Your task to perform on an android device: turn on airplane mode Image 0: 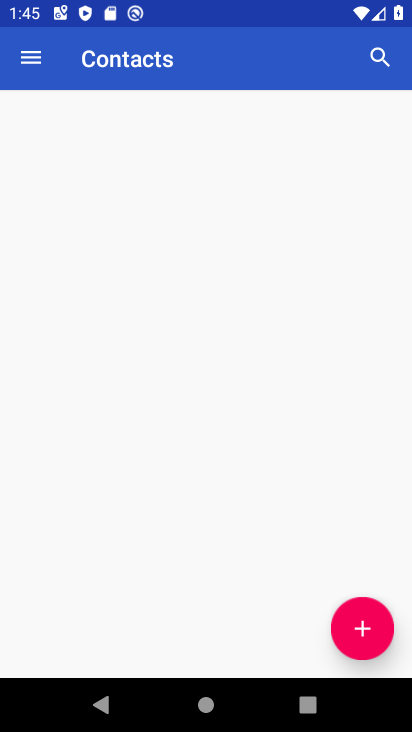
Step 0: drag from (332, 503) to (398, 0)
Your task to perform on an android device: turn on airplane mode Image 1: 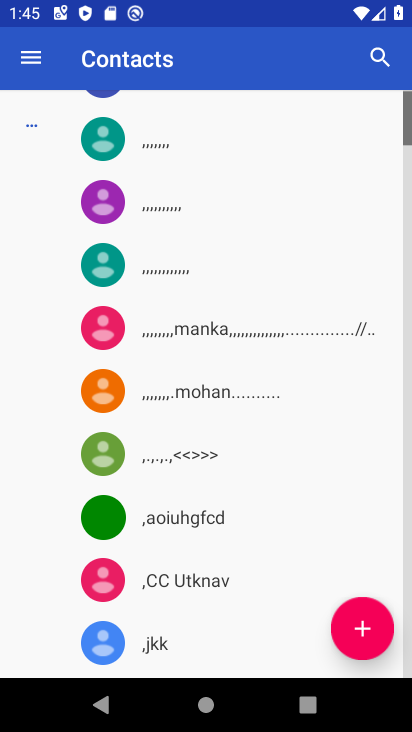
Step 1: press home button
Your task to perform on an android device: turn on airplane mode Image 2: 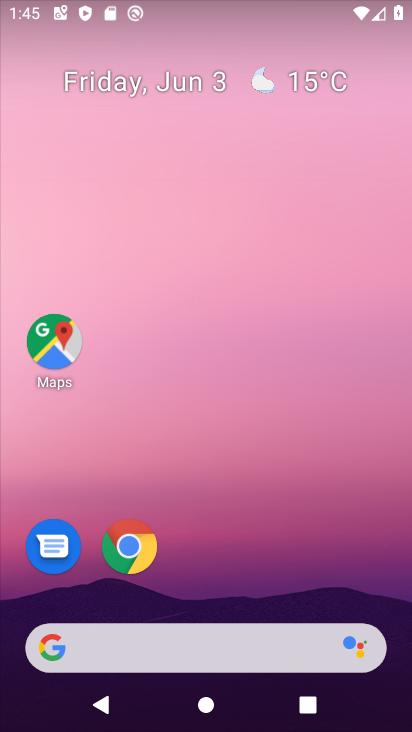
Step 2: drag from (313, 405) to (358, 0)
Your task to perform on an android device: turn on airplane mode Image 3: 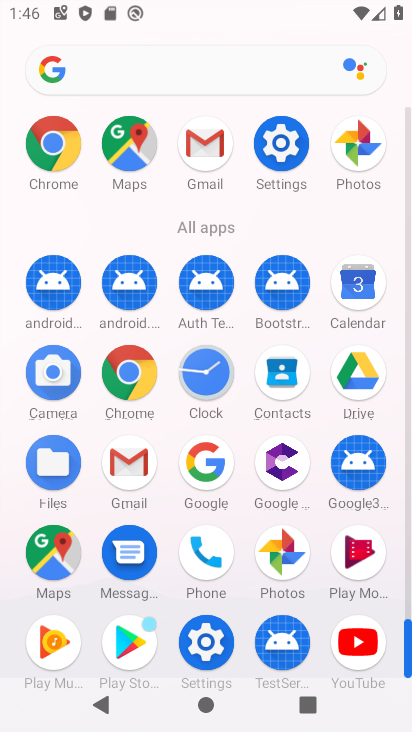
Step 3: click (279, 145)
Your task to perform on an android device: turn on airplane mode Image 4: 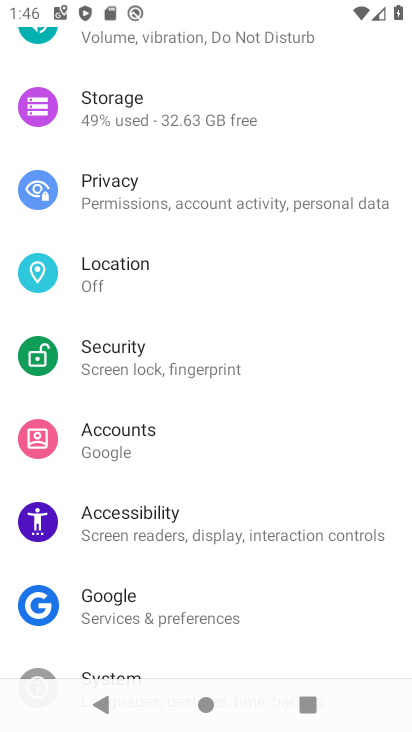
Step 4: drag from (234, 228) to (293, 654)
Your task to perform on an android device: turn on airplane mode Image 5: 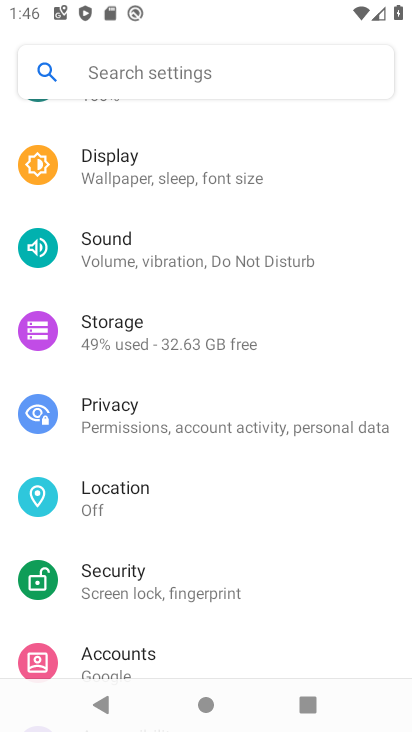
Step 5: drag from (193, 113) to (245, 667)
Your task to perform on an android device: turn on airplane mode Image 6: 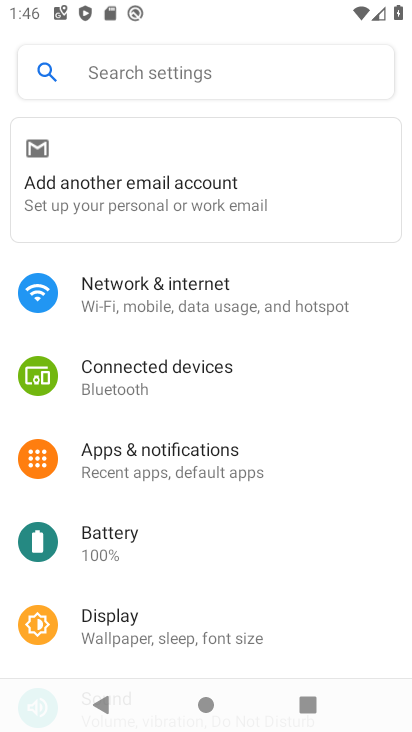
Step 6: drag from (177, 423) to (191, 603)
Your task to perform on an android device: turn on airplane mode Image 7: 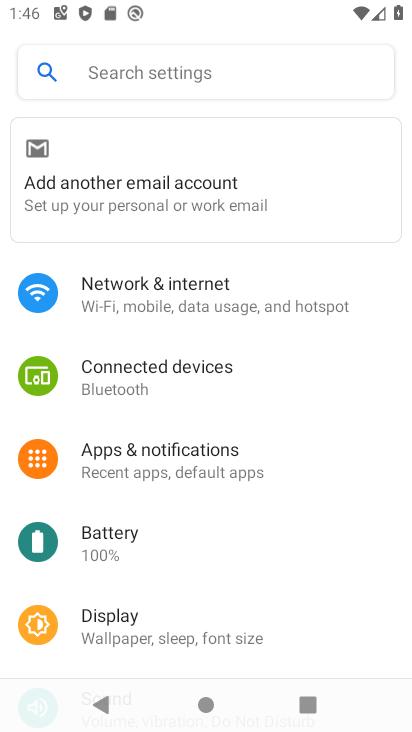
Step 7: click (157, 295)
Your task to perform on an android device: turn on airplane mode Image 8: 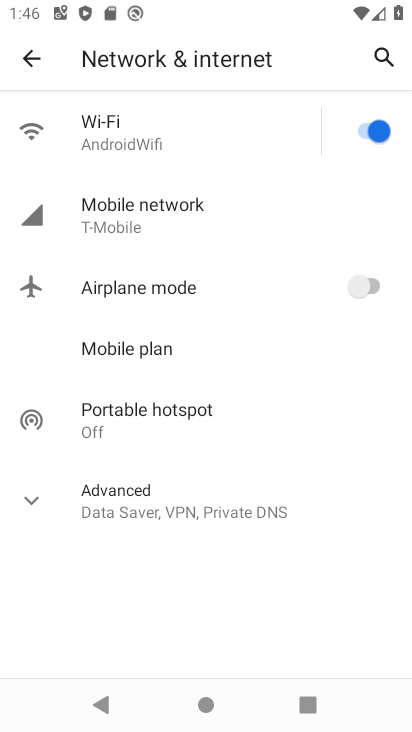
Step 8: click (356, 297)
Your task to perform on an android device: turn on airplane mode Image 9: 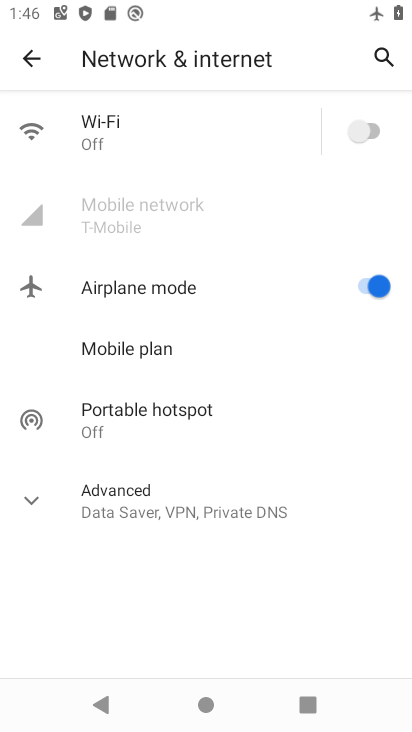
Step 9: task complete